Your task to perform on an android device: turn on notifications settings in the gmail app Image 0: 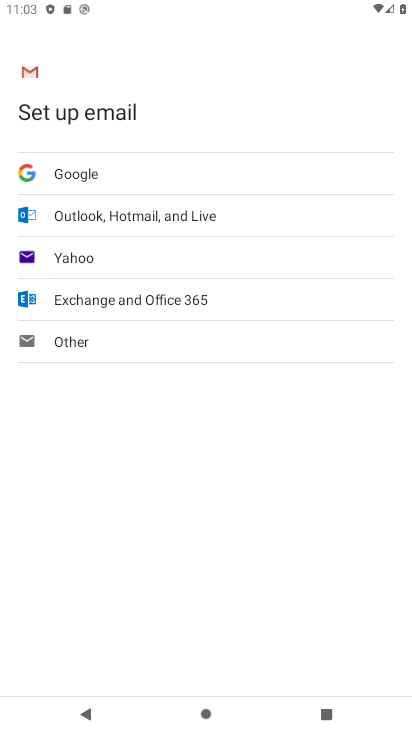
Step 0: press home button
Your task to perform on an android device: turn on notifications settings in the gmail app Image 1: 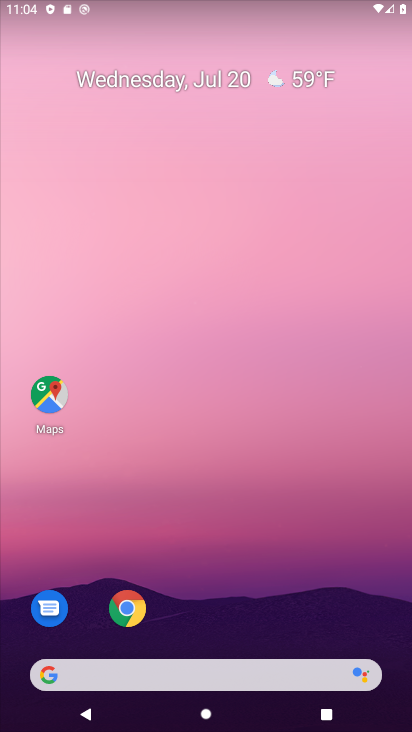
Step 1: drag from (231, 585) to (270, 61)
Your task to perform on an android device: turn on notifications settings in the gmail app Image 2: 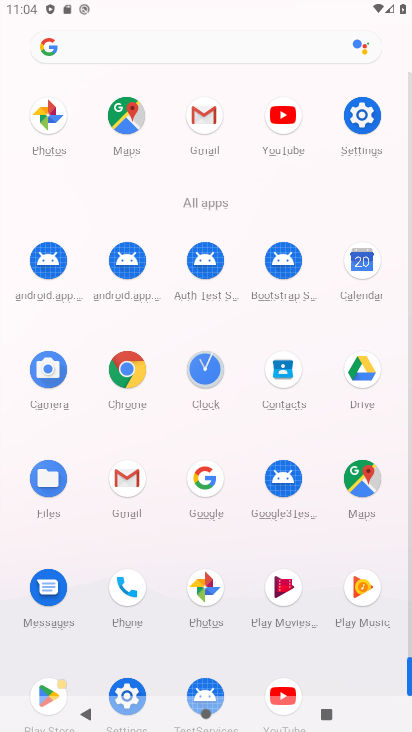
Step 2: click (204, 118)
Your task to perform on an android device: turn on notifications settings in the gmail app Image 3: 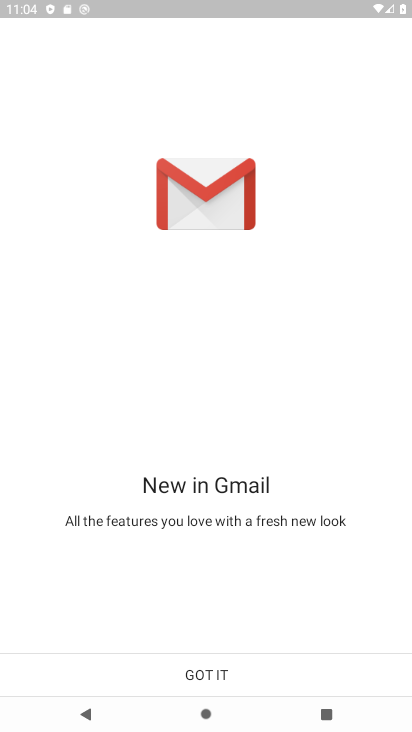
Step 3: click (204, 678)
Your task to perform on an android device: turn on notifications settings in the gmail app Image 4: 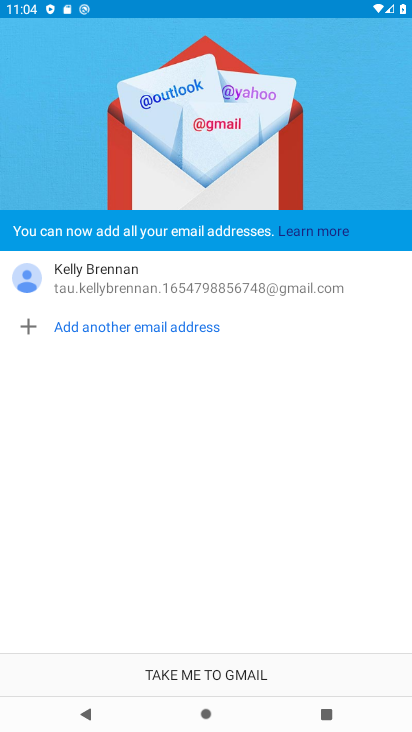
Step 4: press home button
Your task to perform on an android device: turn on notifications settings in the gmail app Image 5: 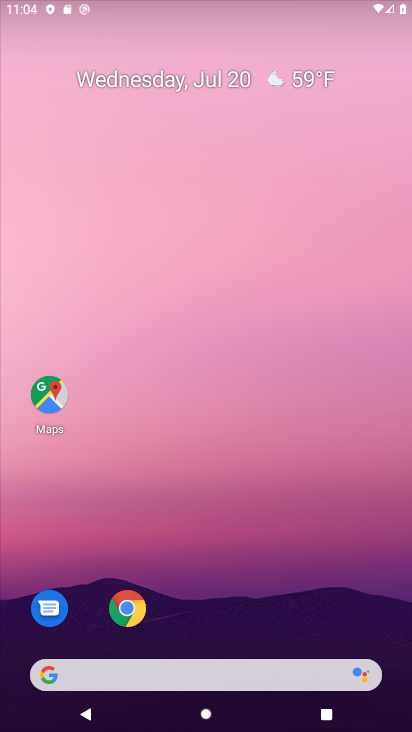
Step 5: drag from (278, 515) to (201, 7)
Your task to perform on an android device: turn on notifications settings in the gmail app Image 6: 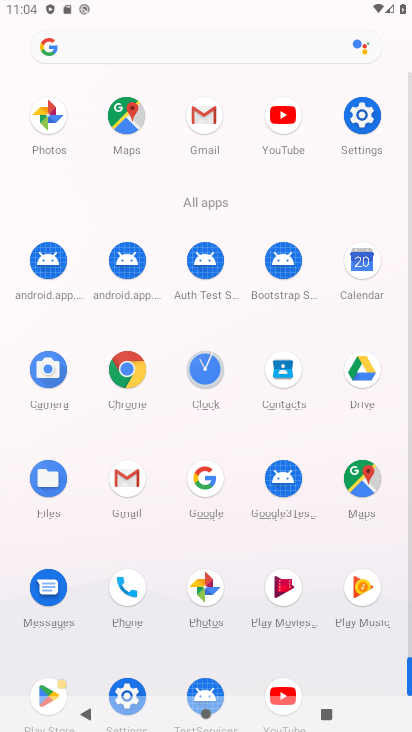
Step 6: click (209, 118)
Your task to perform on an android device: turn on notifications settings in the gmail app Image 7: 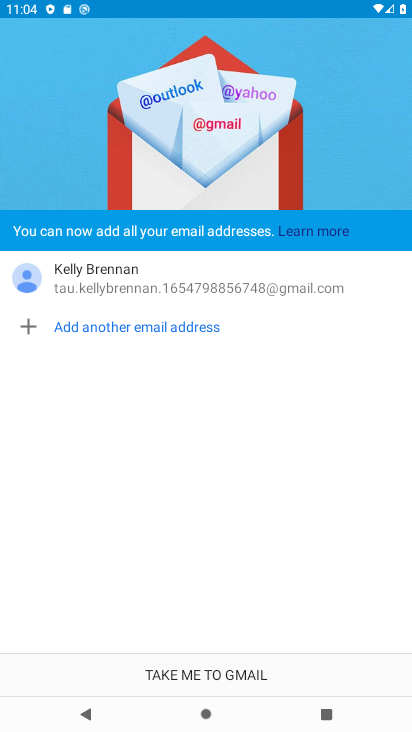
Step 7: click (198, 672)
Your task to perform on an android device: turn on notifications settings in the gmail app Image 8: 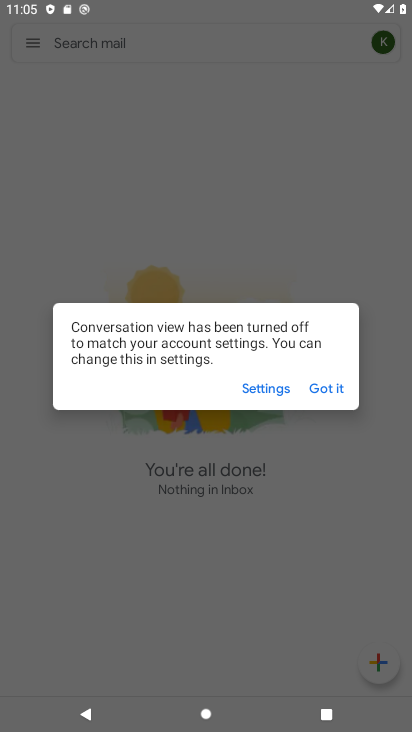
Step 8: click (329, 394)
Your task to perform on an android device: turn on notifications settings in the gmail app Image 9: 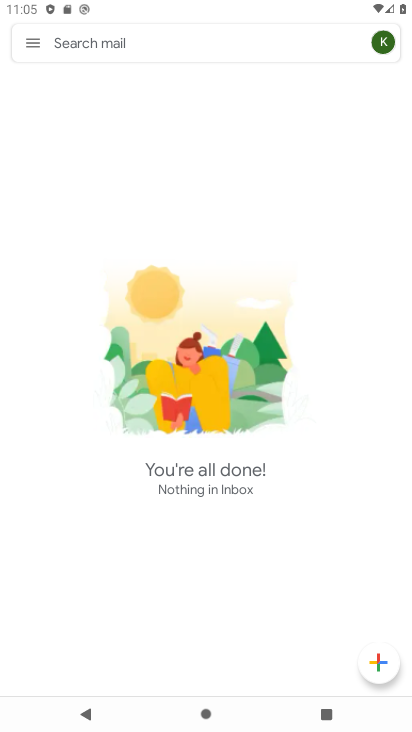
Step 9: click (31, 44)
Your task to perform on an android device: turn on notifications settings in the gmail app Image 10: 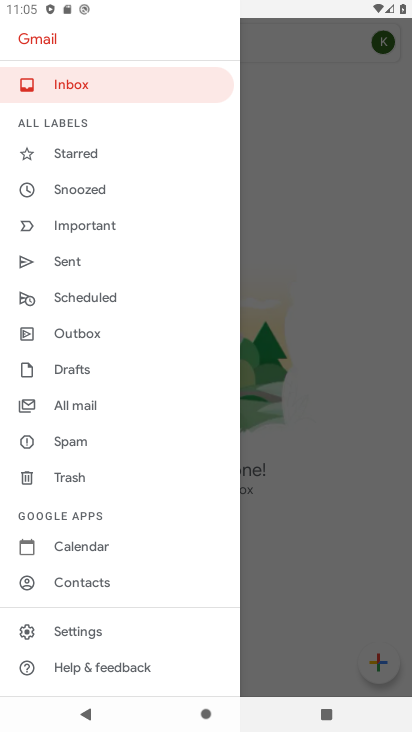
Step 10: click (67, 631)
Your task to perform on an android device: turn on notifications settings in the gmail app Image 11: 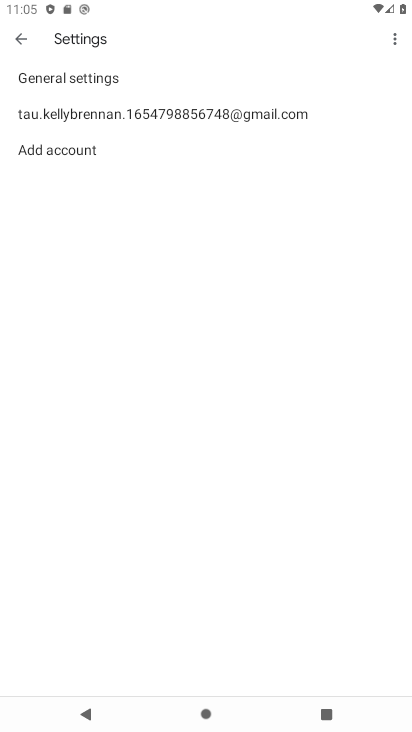
Step 11: click (81, 115)
Your task to perform on an android device: turn on notifications settings in the gmail app Image 12: 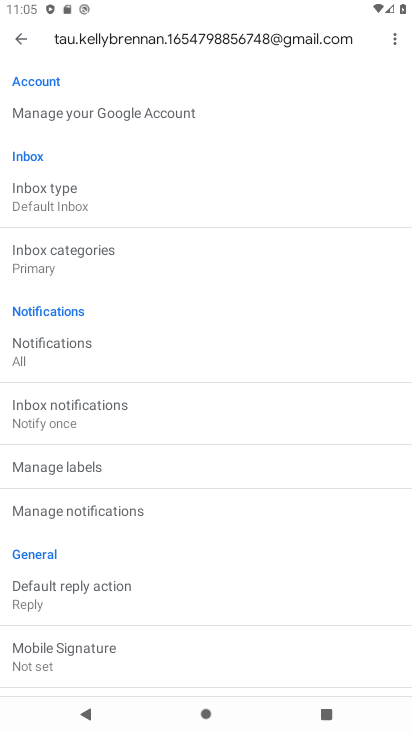
Step 12: click (56, 347)
Your task to perform on an android device: turn on notifications settings in the gmail app Image 13: 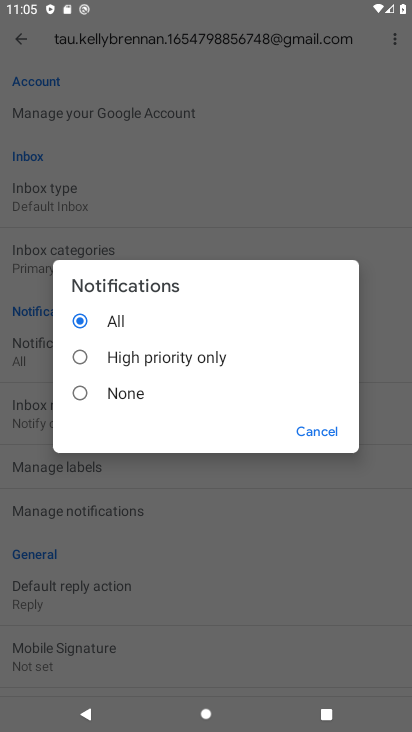
Step 13: task complete